Your task to perform on an android device: What's the weather today? Image 0: 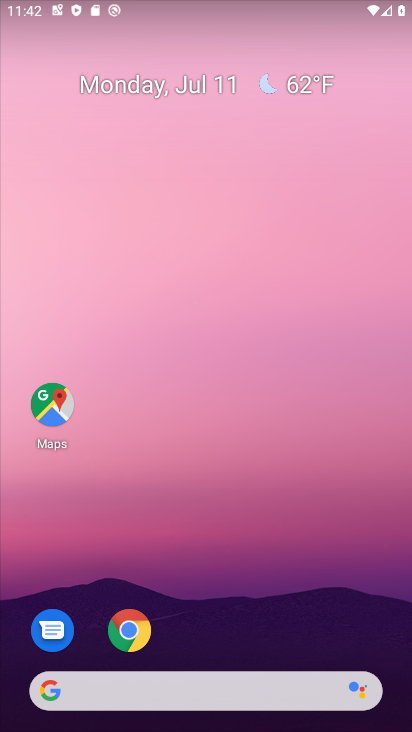
Step 0: drag from (0, 251) to (318, 182)
Your task to perform on an android device: What's the weather today? Image 1: 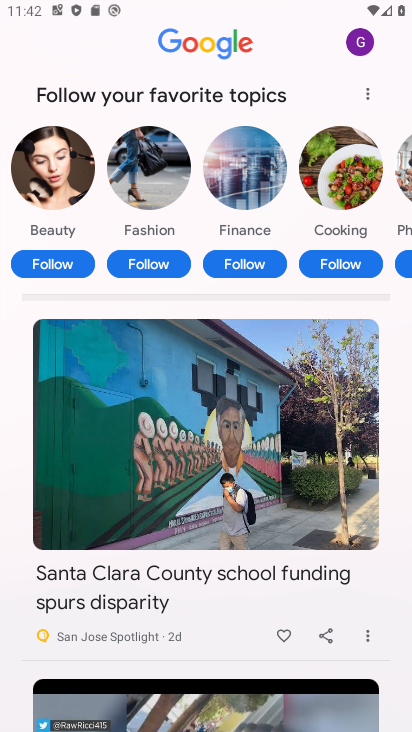
Step 1: drag from (196, 618) to (197, 97)
Your task to perform on an android device: What's the weather today? Image 2: 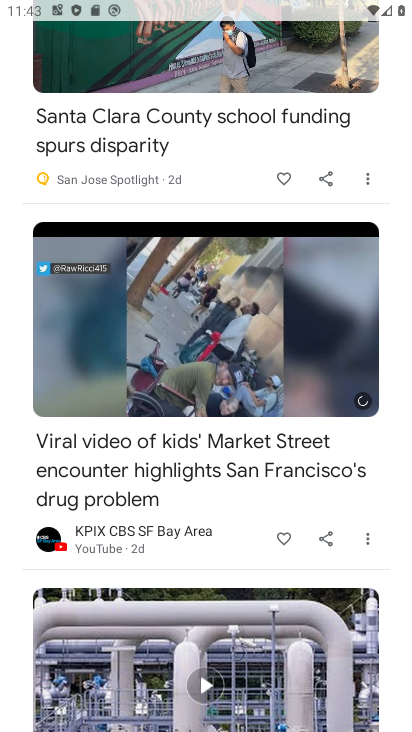
Step 2: drag from (399, 279) to (2, 344)
Your task to perform on an android device: What's the weather today? Image 3: 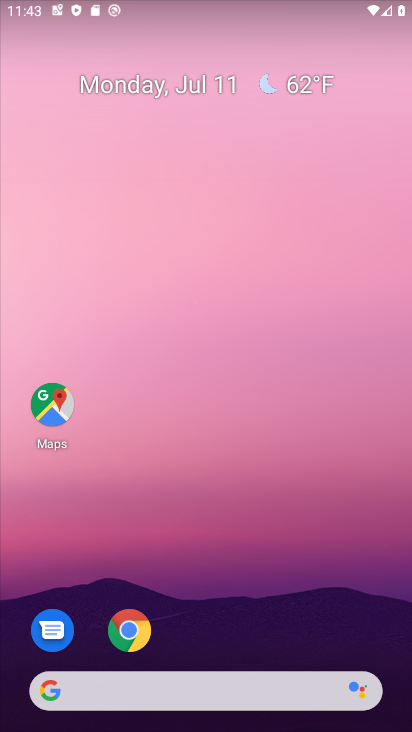
Step 3: drag from (205, 655) to (218, 169)
Your task to perform on an android device: What's the weather today? Image 4: 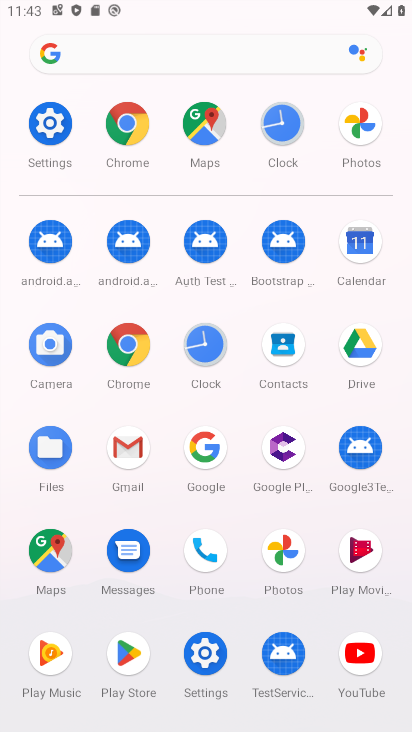
Step 4: click (196, 443)
Your task to perform on an android device: What's the weather today? Image 5: 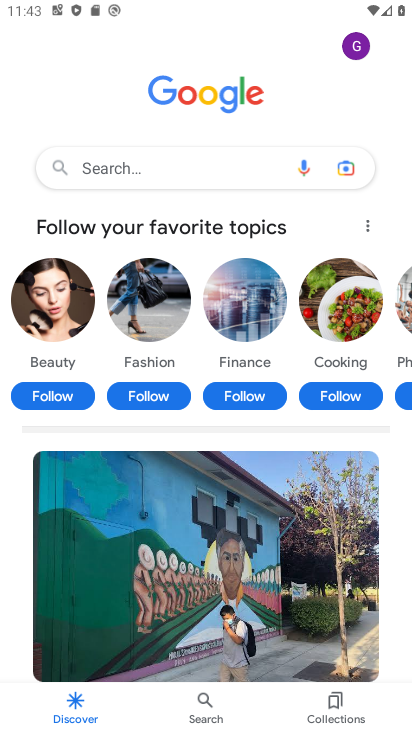
Step 5: click (118, 172)
Your task to perform on an android device: What's the weather today? Image 6: 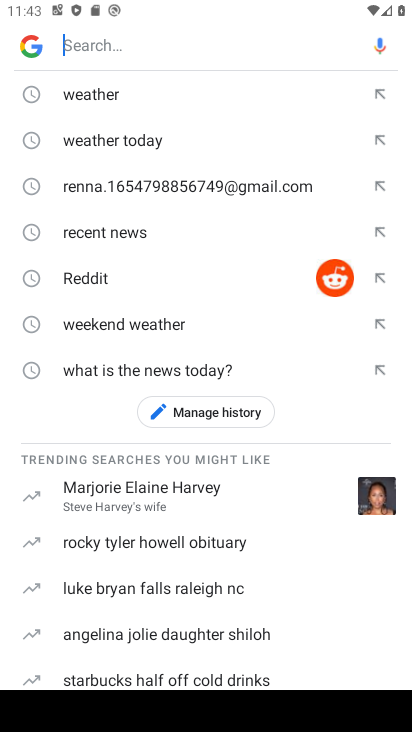
Step 6: click (182, 147)
Your task to perform on an android device: What's the weather today? Image 7: 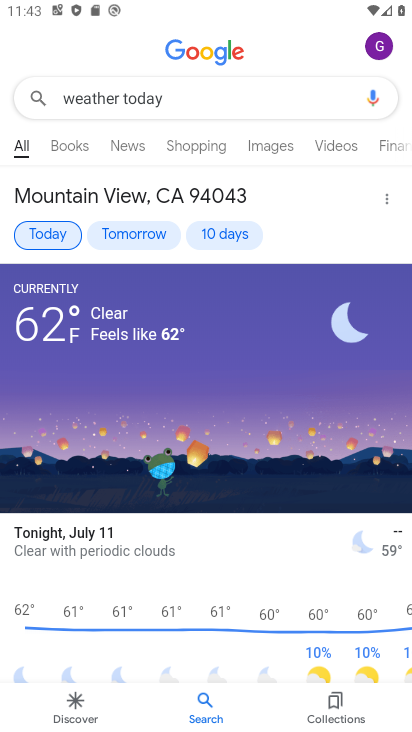
Step 7: task complete